Your task to perform on an android device: see tabs open on other devices in the chrome app Image 0: 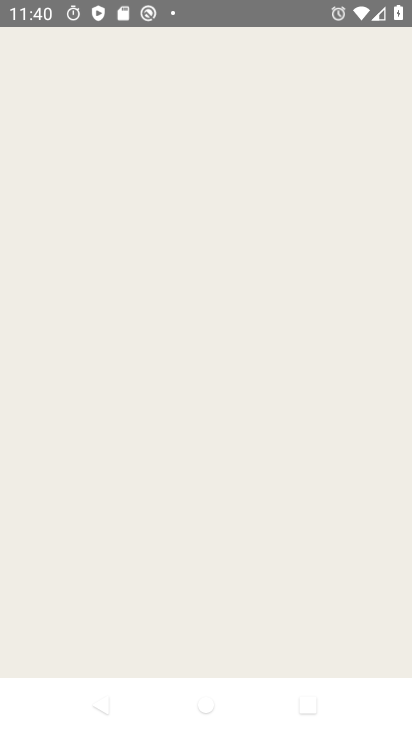
Step 0: press home button
Your task to perform on an android device: see tabs open on other devices in the chrome app Image 1: 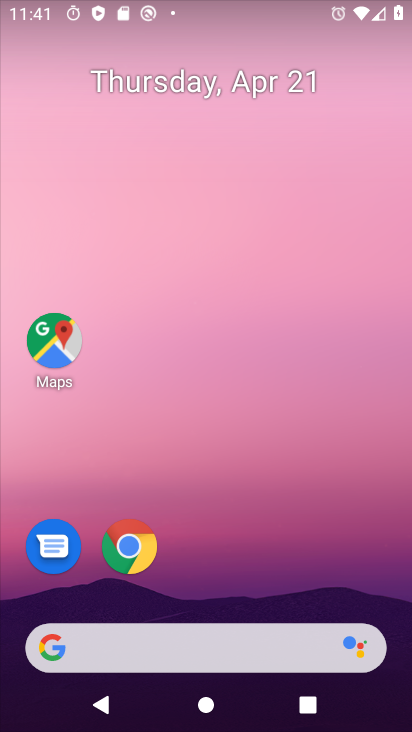
Step 1: click (128, 552)
Your task to perform on an android device: see tabs open on other devices in the chrome app Image 2: 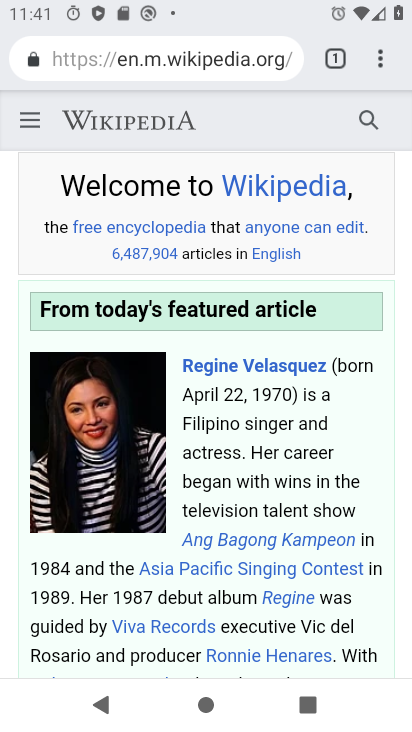
Step 2: click (331, 55)
Your task to perform on an android device: see tabs open on other devices in the chrome app Image 3: 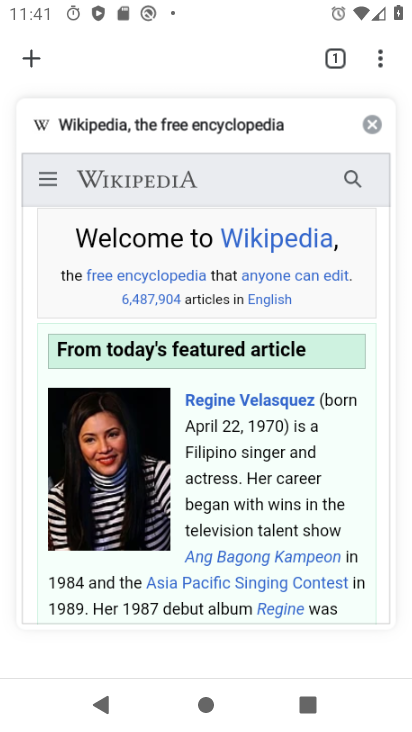
Step 3: task complete